Your task to perform on an android device: uninstall "Gboard" Image 0: 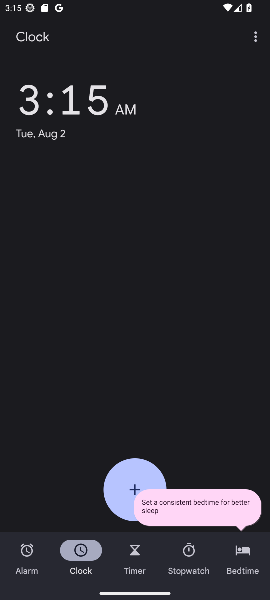
Step 0: press home button
Your task to perform on an android device: uninstall "Gboard" Image 1: 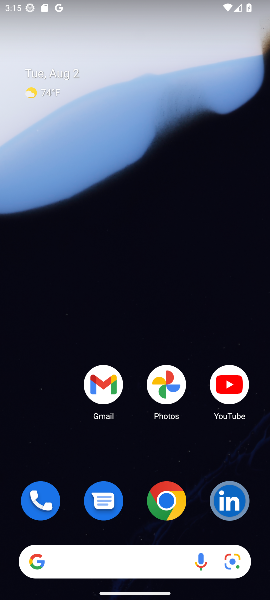
Step 1: drag from (140, 474) to (134, 16)
Your task to perform on an android device: uninstall "Gboard" Image 2: 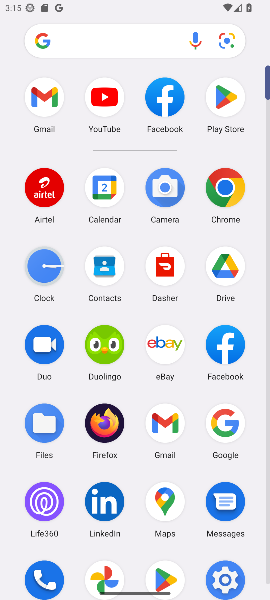
Step 2: click (222, 110)
Your task to perform on an android device: uninstall "Gboard" Image 3: 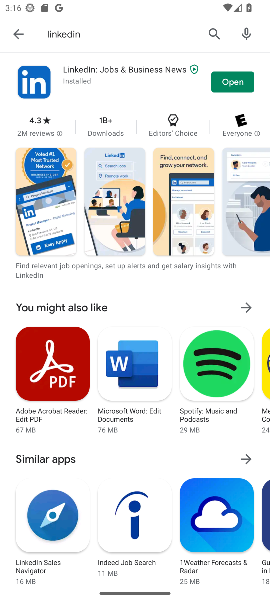
Step 3: click (215, 28)
Your task to perform on an android device: uninstall "Gboard" Image 4: 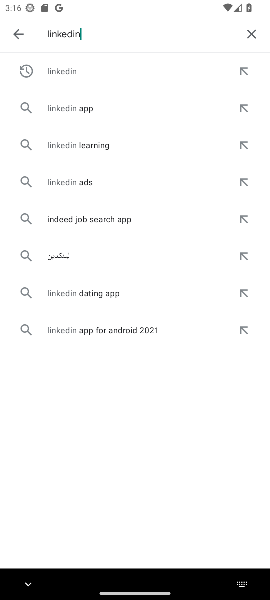
Step 4: click (255, 28)
Your task to perform on an android device: uninstall "Gboard" Image 5: 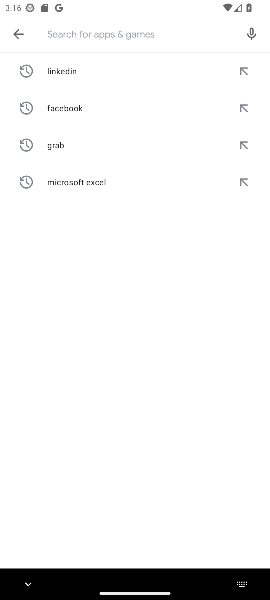
Step 5: type "Gboard"
Your task to perform on an android device: uninstall "Gboard" Image 6: 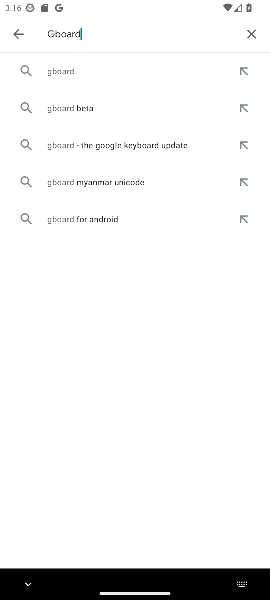
Step 6: click (74, 77)
Your task to perform on an android device: uninstall "Gboard" Image 7: 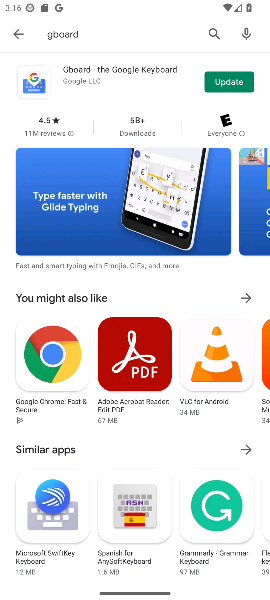
Step 7: click (71, 72)
Your task to perform on an android device: uninstall "Gboard" Image 8: 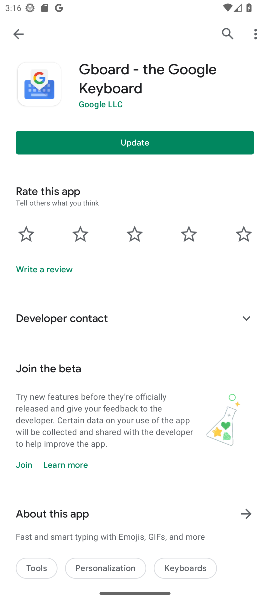
Step 8: click (87, 66)
Your task to perform on an android device: uninstall "Gboard" Image 9: 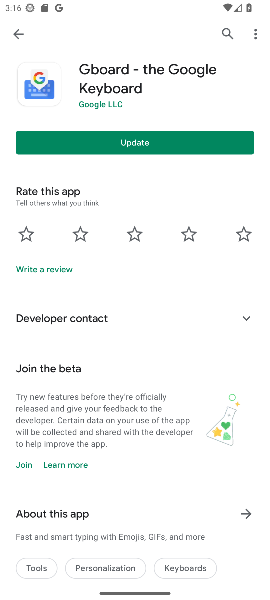
Step 9: task complete